Your task to perform on an android device: make emails show in primary in the gmail app Image 0: 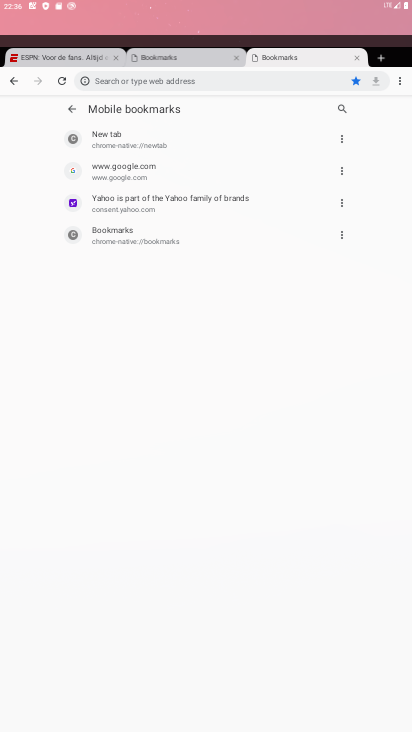
Step 0: click (297, 253)
Your task to perform on an android device: make emails show in primary in the gmail app Image 1: 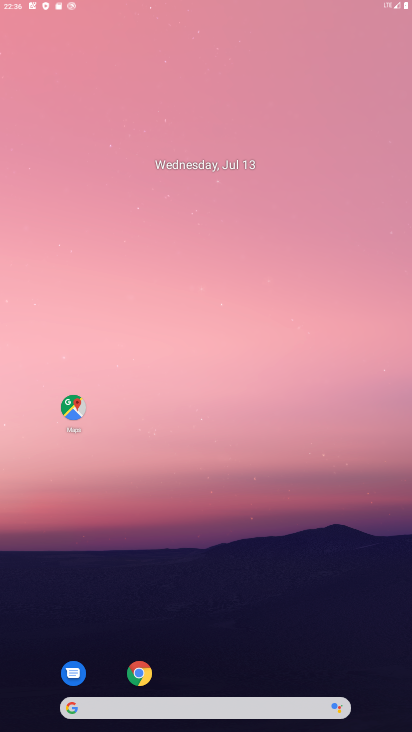
Step 1: drag from (253, 634) to (307, 82)
Your task to perform on an android device: make emails show in primary in the gmail app Image 2: 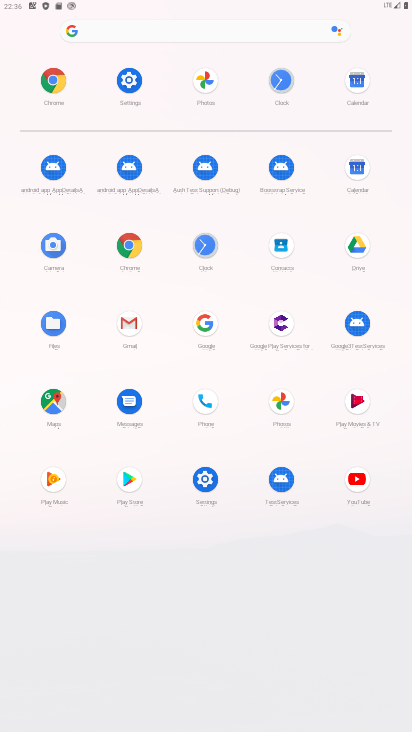
Step 2: click (130, 310)
Your task to perform on an android device: make emails show in primary in the gmail app Image 3: 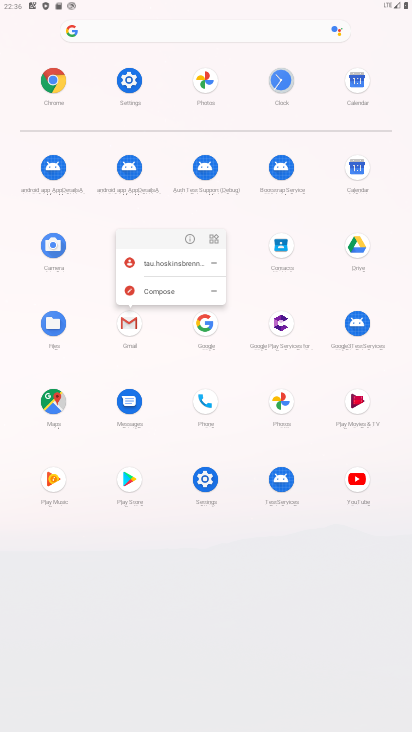
Step 3: click (191, 242)
Your task to perform on an android device: make emails show in primary in the gmail app Image 4: 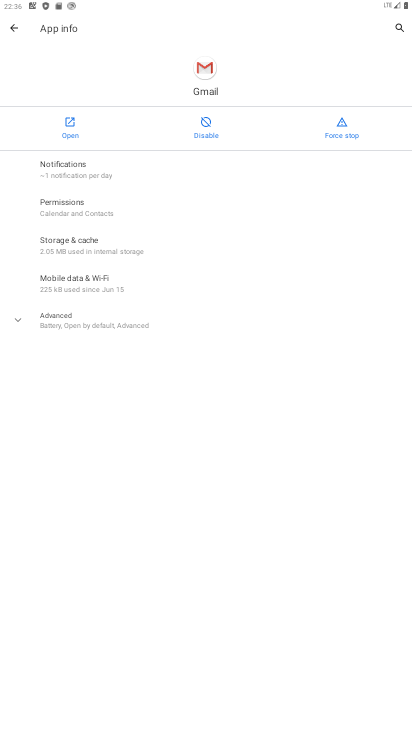
Step 4: click (74, 122)
Your task to perform on an android device: make emails show in primary in the gmail app Image 5: 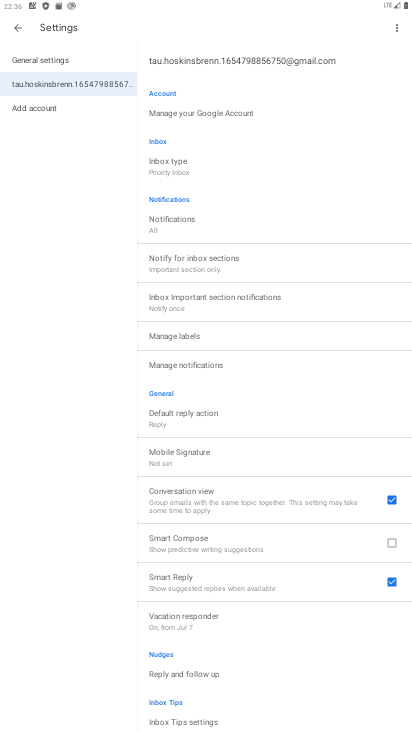
Step 5: click (19, 23)
Your task to perform on an android device: make emails show in primary in the gmail app Image 6: 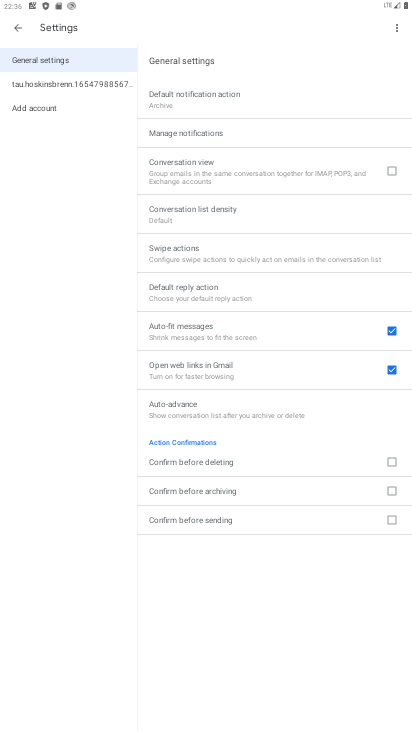
Step 6: click (20, 32)
Your task to perform on an android device: make emails show in primary in the gmail app Image 7: 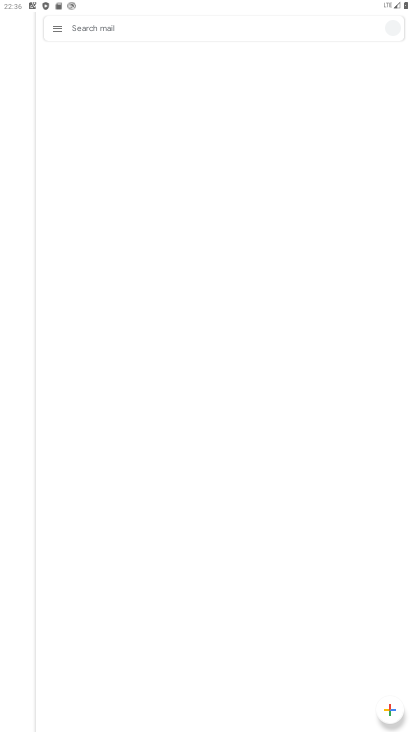
Step 7: click (20, 32)
Your task to perform on an android device: make emails show in primary in the gmail app Image 8: 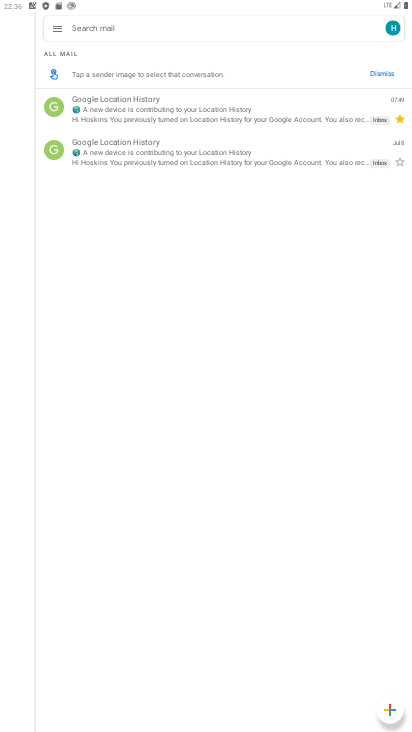
Step 8: click (31, 27)
Your task to perform on an android device: make emails show in primary in the gmail app Image 9: 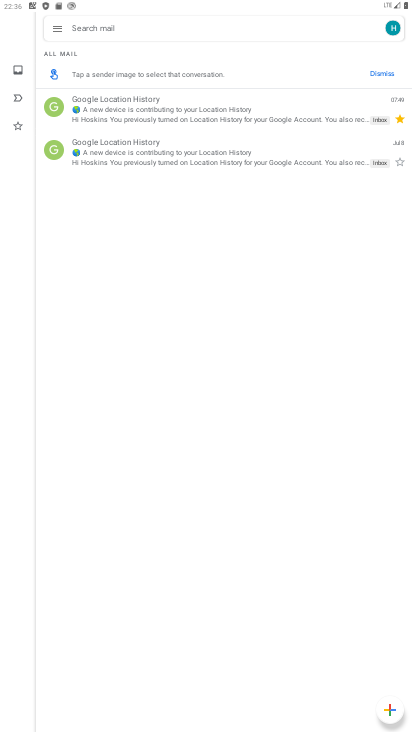
Step 9: click (49, 35)
Your task to perform on an android device: make emails show in primary in the gmail app Image 10: 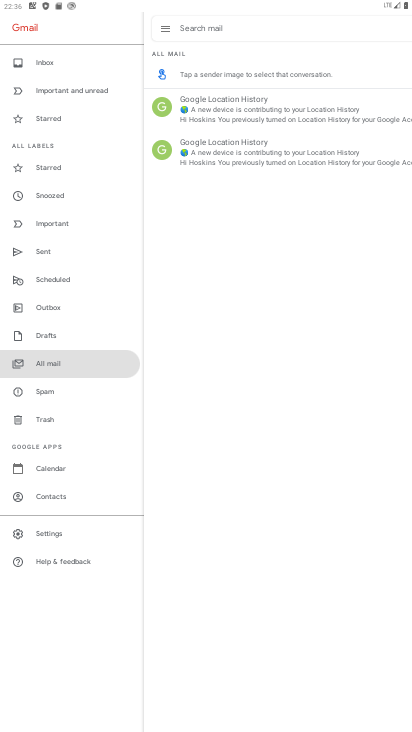
Step 10: click (43, 66)
Your task to perform on an android device: make emails show in primary in the gmail app Image 11: 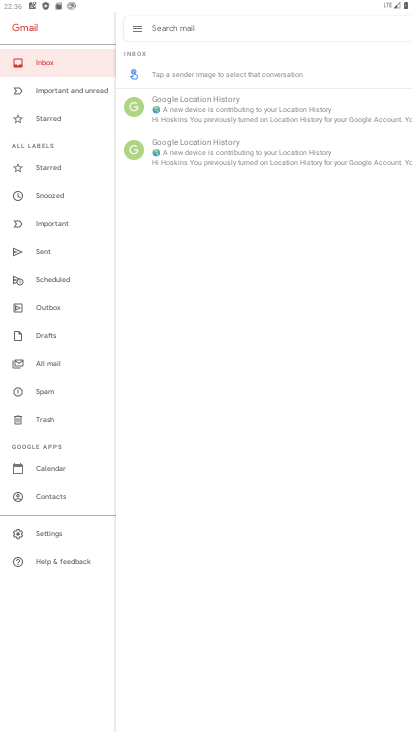
Step 11: task complete